Your task to perform on an android device: uninstall "TextNow: Call + Text Unlimited" Image 0: 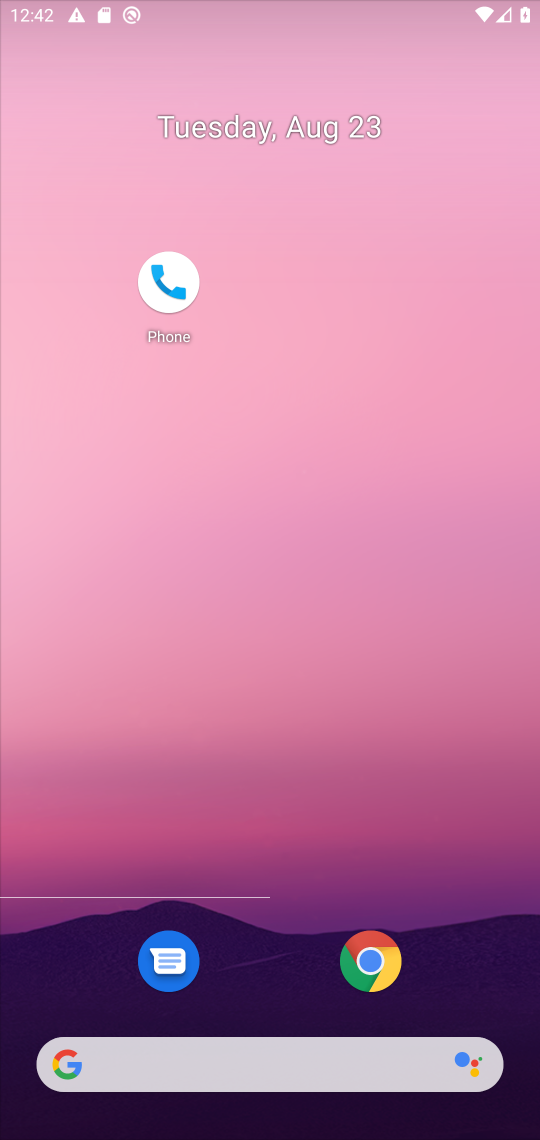
Step 0: press home button
Your task to perform on an android device: uninstall "TextNow: Call + Text Unlimited" Image 1: 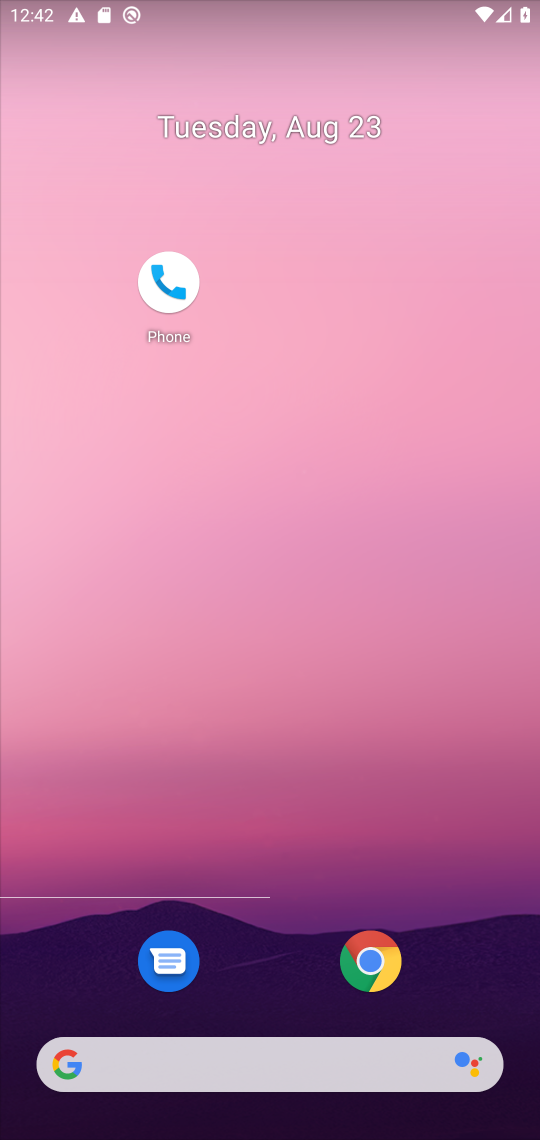
Step 1: drag from (256, 1010) to (260, 98)
Your task to perform on an android device: uninstall "TextNow: Call + Text Unlimited" Image 2: 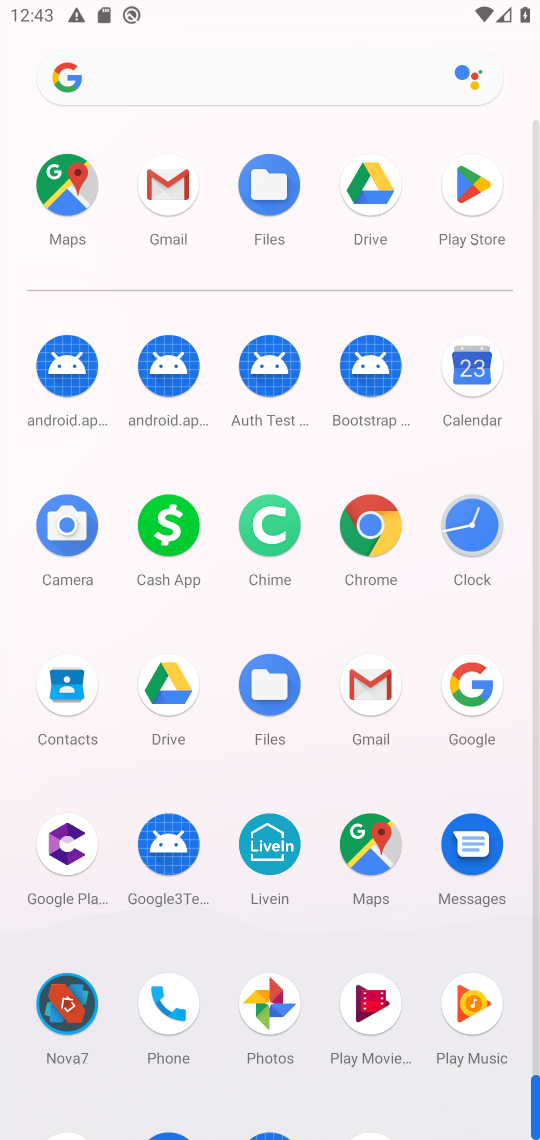
Step 2: click (462, 231)
Your task to perform on an android device: uninstall "TextNow: Call + Text Unlimited" Image 3: 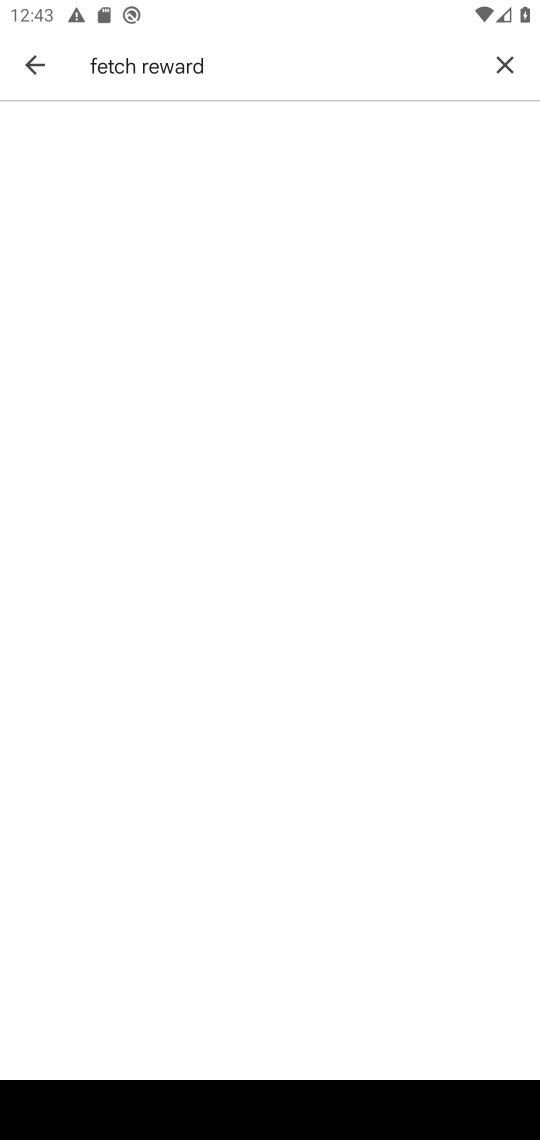
Step 3: click (497, 74)
Your task to perform on an android device: uninstall "TextNow: Call + Text Unlimited" Image 4: 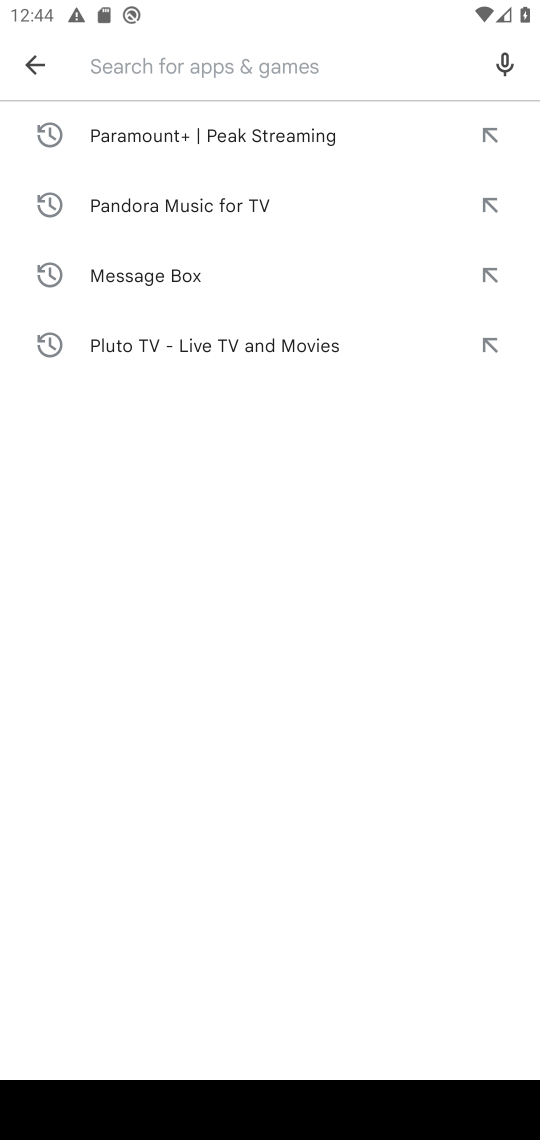
Step 4: task complete